Your task to perform on an android device: clear all cookies in the chrome app Image 0: 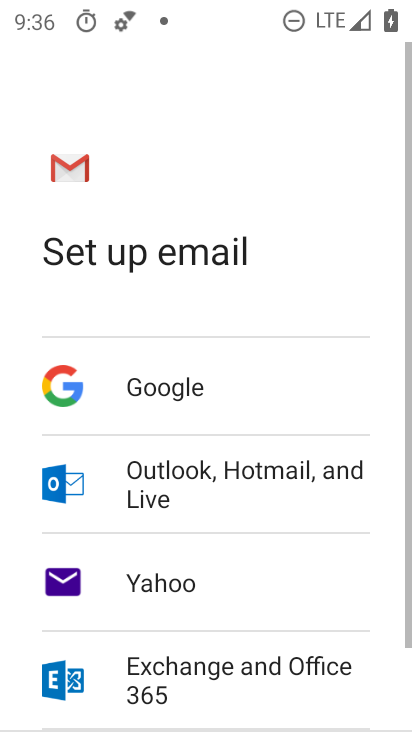
Step 0: press home button
Your task to perform on an android device: clear all cookies in the chrome app Image 1: 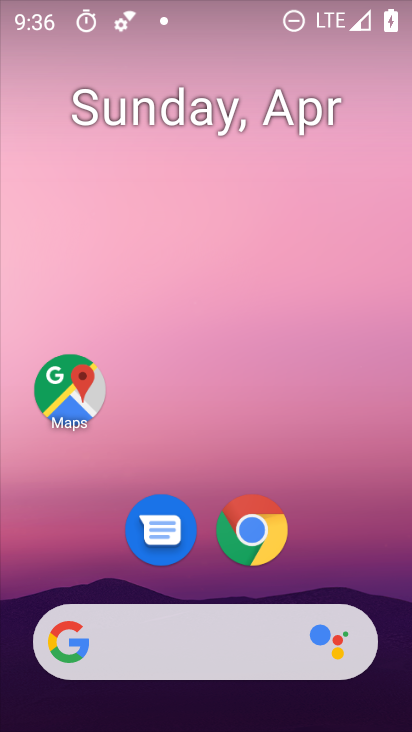
Step 1: click (253, 534)
Your task to perform on an android device: clear all cookies in the chrome app Image 2: 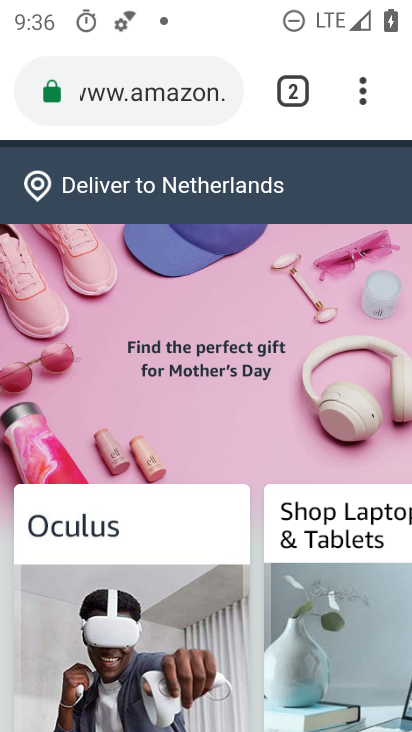
Step 2: click (364, 93)
Your task to perform on an android device: clear all cookies in the chrome app Image 3: 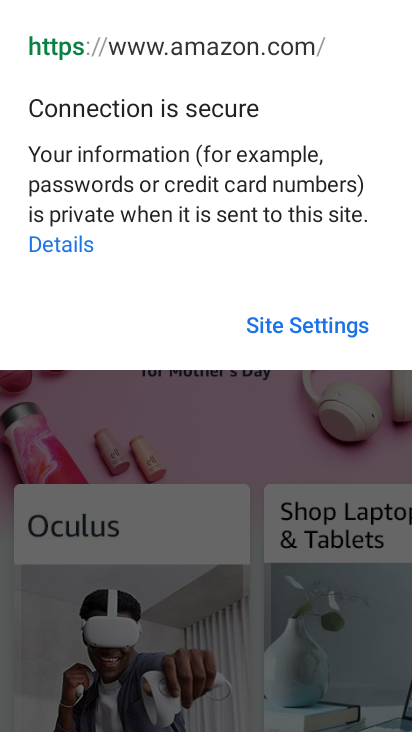
Step 3: click (394, 400)
Your task to perform on an android device: clear all cookies in the chrome app Image 4: 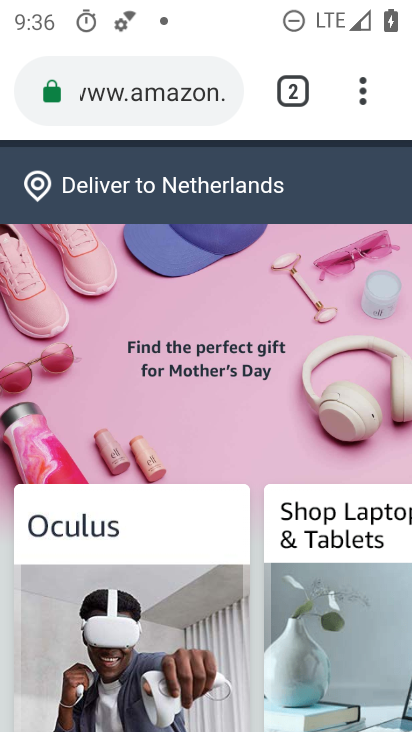
Step 4: drag from (365, 87) to (113, 549)
Your task to perform on an android device: clear all cookies in the chrome app Image 5: 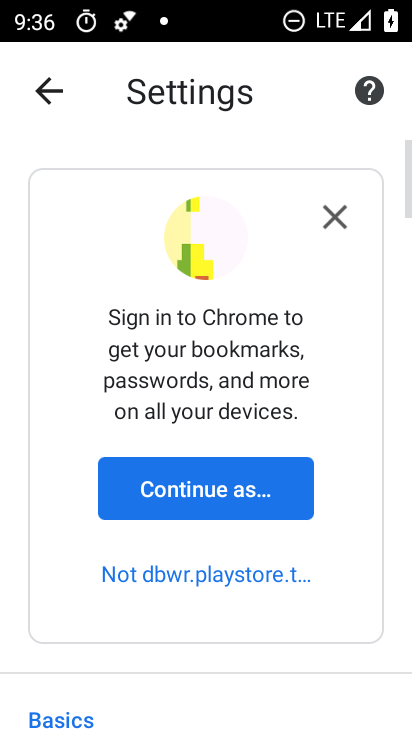
Step 5: drag from (230, 579) to (227, 119)
Your task to perform on an android device: clear all cookies in the chrome app Image 6: 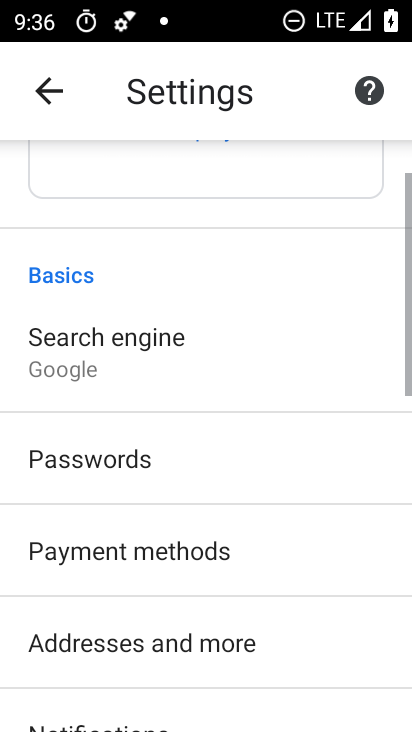
Step 6: drag from (250, 585) to (245, 265)
Your task to perform on an android device: clear all cookies in the chrome app Image 7: 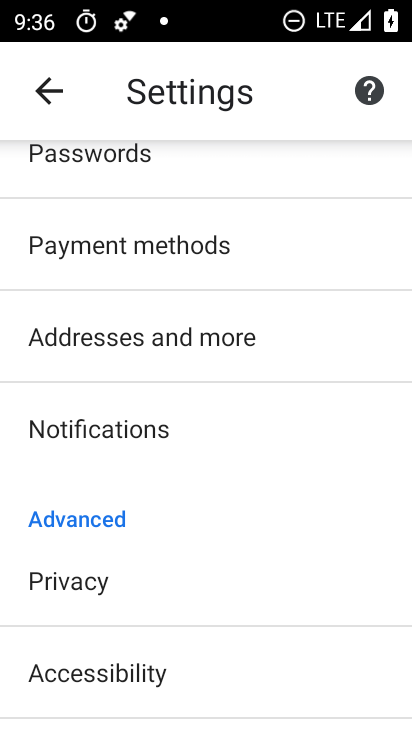
Step 7: click (82, 583)
Your task to perform on an android device: clear all cookies in the chrome app Image 8: 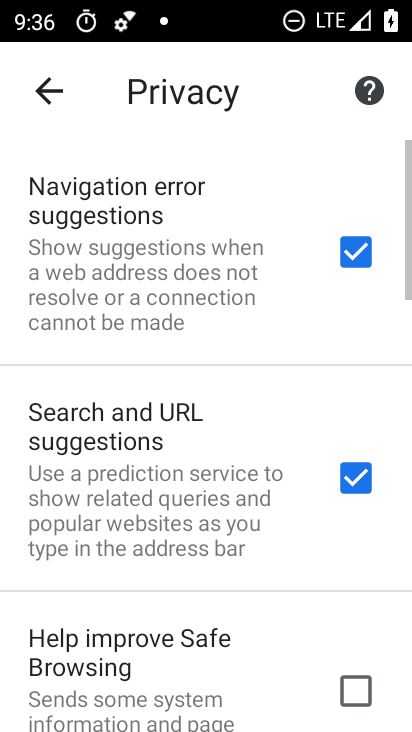
Step 8: drag from (148, 638) to (145, 28)
Your task to perform on an android device: clear all cookies in the chrome app Image 9: 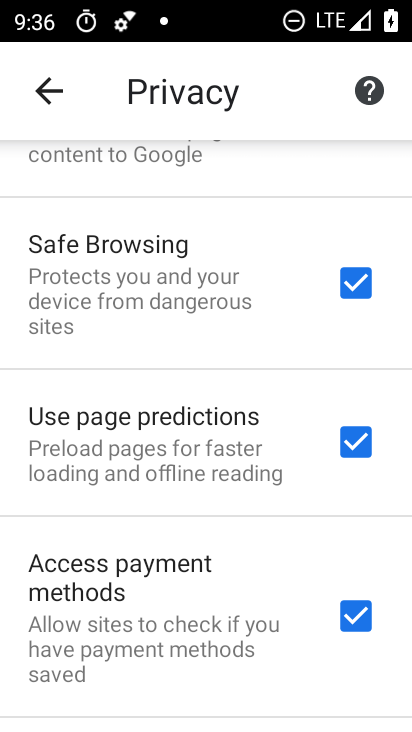
Step 9: drag from (119, 384) to (117, 135)
Your task to perform on an android device: clear all cookies in the chrome app Image 10: 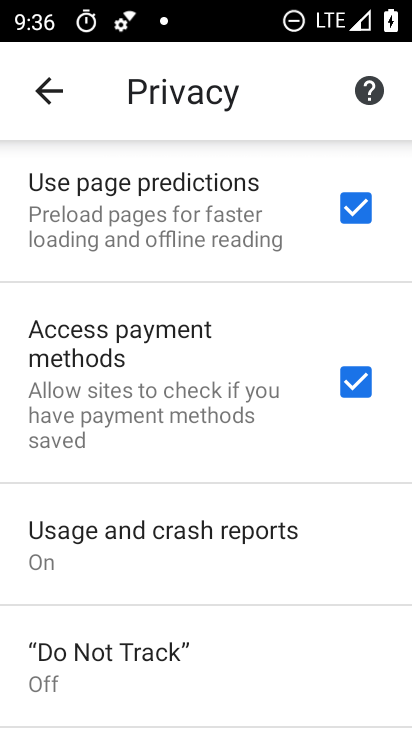
Step 10: drag from (154, 400) to (141, 155)
Your task to perform on an android device: clear all cookies in the chrome app Image 11: 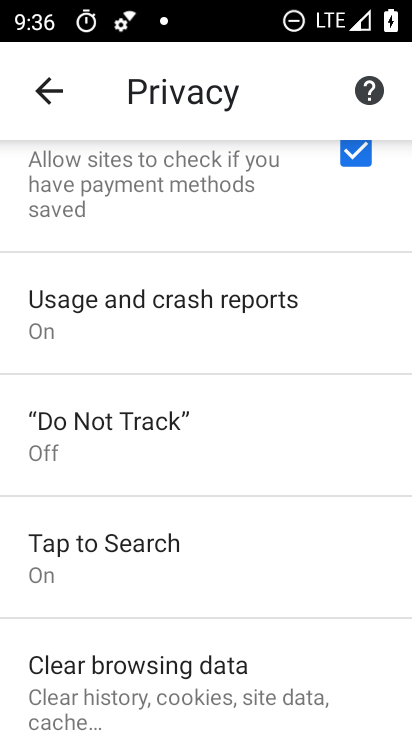
Step 11: drag from (146, 546) to (135, 265)
Your task to perform on an android device: clear all cookies in the chrome app Image 12: 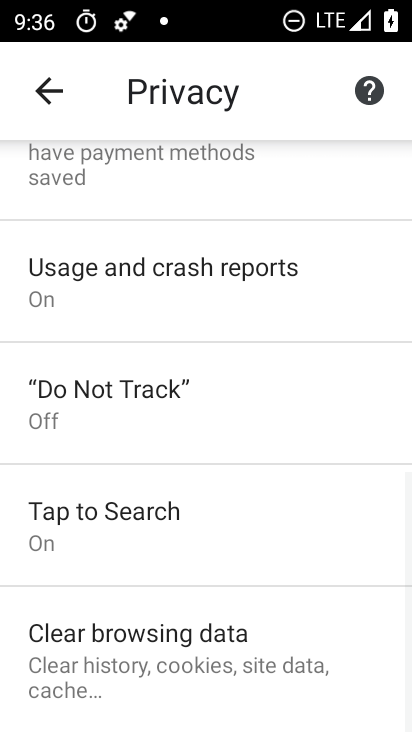
Step 12: click (89, 648)
Your task to perform on an android device: clear all cookies in the chrome app Image 13: 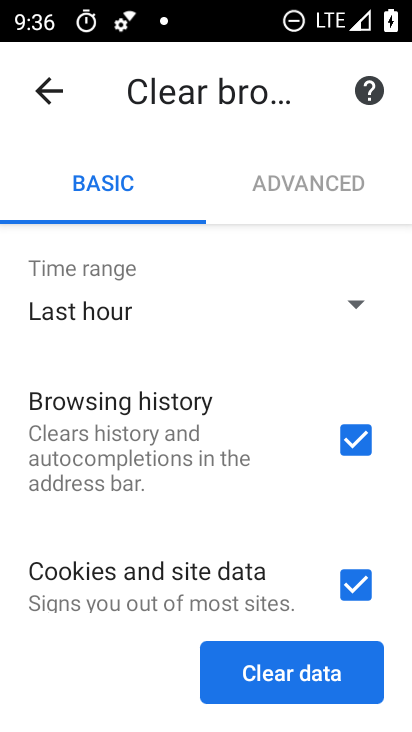
Step 13: click (334, 436)
Your task to perform on an android device: clear all cookies in the chrome app Image 14: 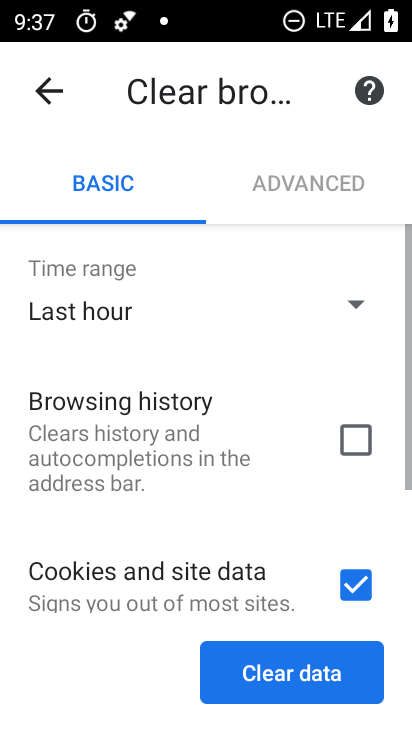
Step 14: drag from (176, 597) to (168, 254)
Your task to perform on an android device: clear all cookies in the chrome app Image 15: 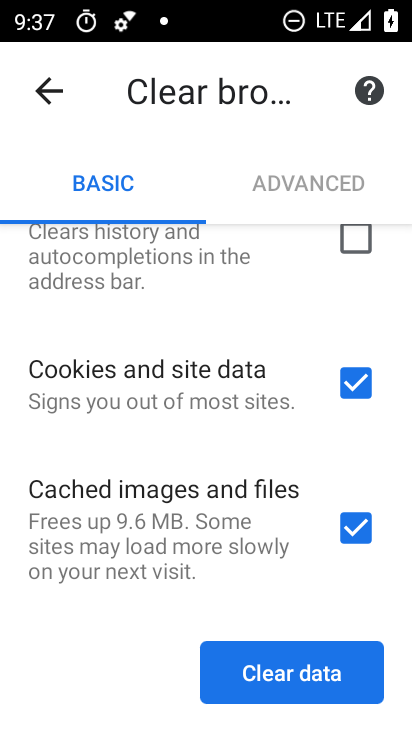
Step 15: click (354, 544)
Your task to perform on an android device: clear all cookies in the chrome app Image 16: 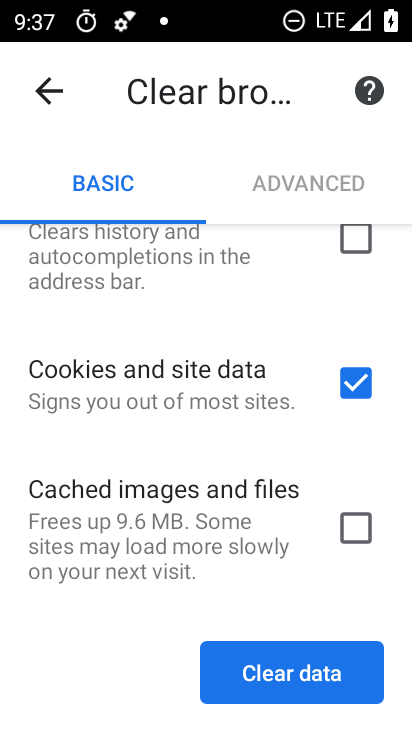
Step 16: click (281, 686)
Your task to perform on an android device: clear all cookies in the chrome app Image 17: 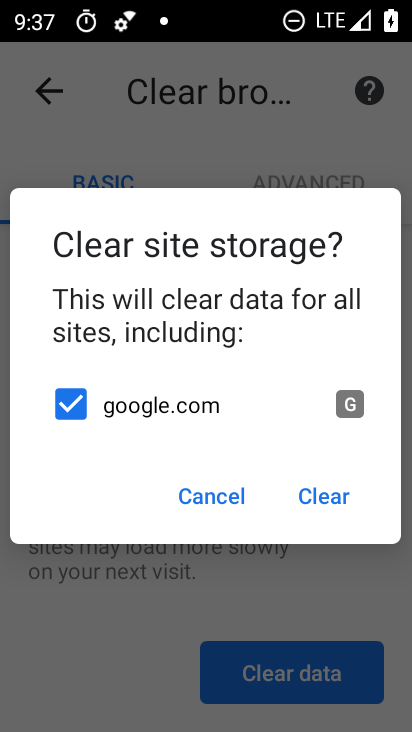
Step 17: click (315, 489)
Your task to perform on an android device: clear all cookies in the chrome app Image 18: 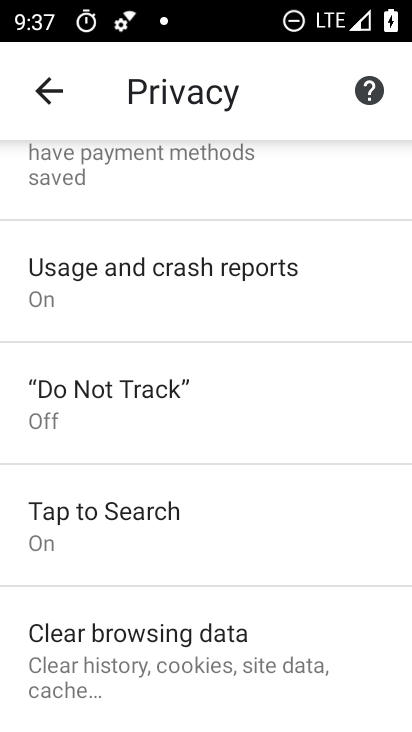
Step 18: task complete